Your task to perform on an android device: Go to network settings Image 0: 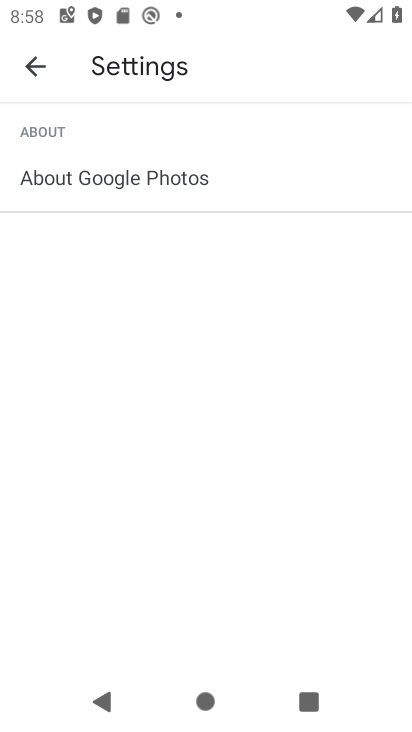
Step 0: press home button
Your task to perform on an android device: Go to network settings Image 1: 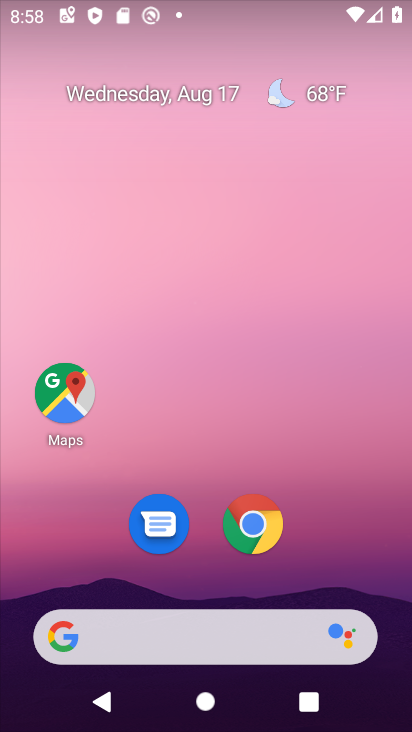
Step 1: drag from (309, 567) to (385, 2)
Your task to perform on an android device: Go to network settings Image 2: 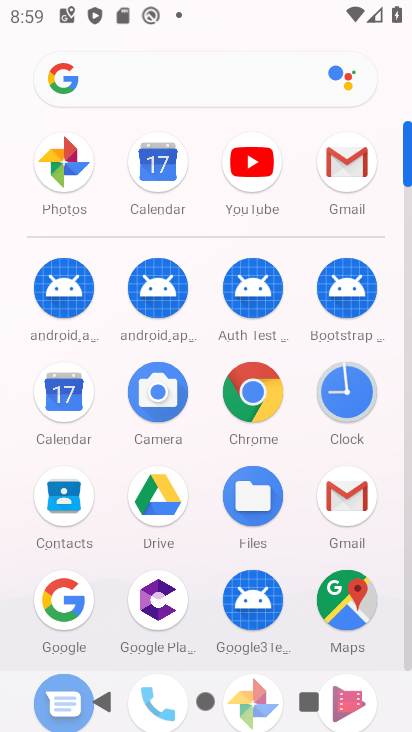
Step 2: drag from (203, 532) to (239, 66)
Your task to perform on an android device: Go to network settings Image 3: 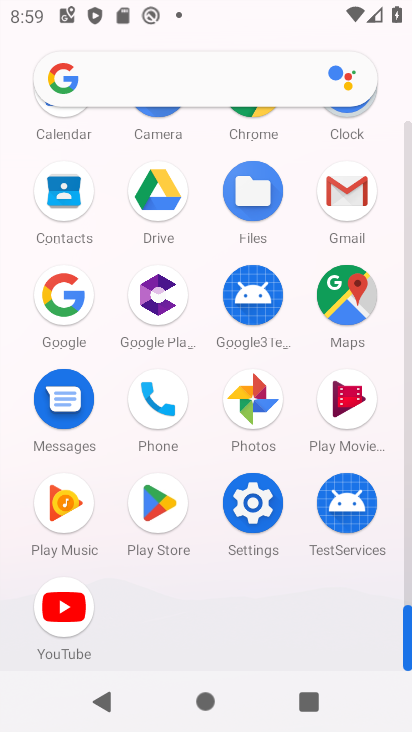
Step 3: click (262, 499)
Your task to perform on an android device: Go to network settings Image 4: 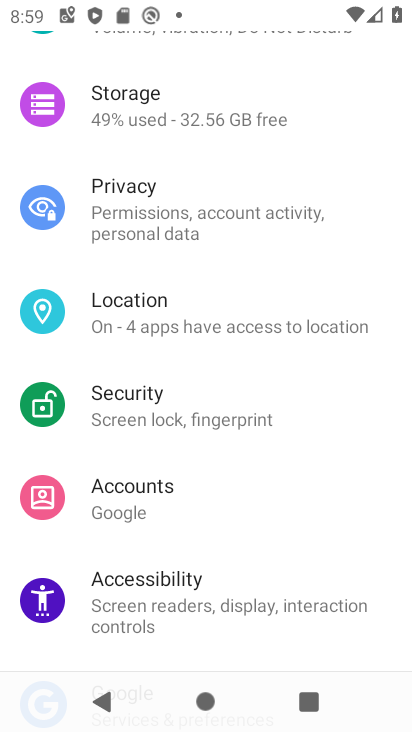
Step 4: drag from (233, 204) to (219, 613)
Your task to perform on an android device: Go to network settings Image 5: 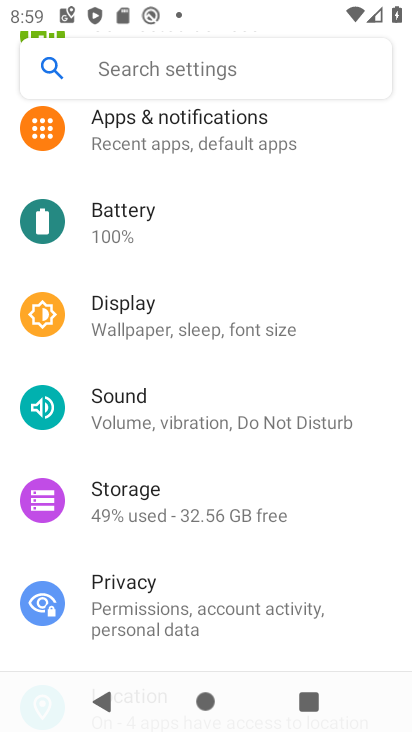
Step 5: drag from (227, 217) to (247, 553)
Your task to perform on an android device: Go to network settings Image 6: 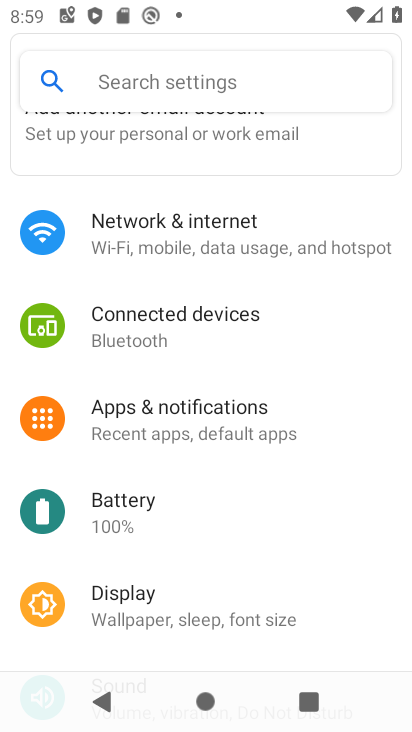
Step 6: click (252, 233)
Your task to perform on an android device: Go to network settings Image 7: 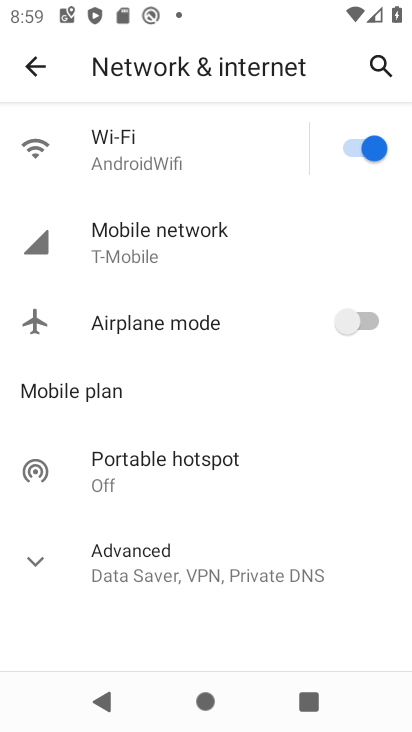
Step 7: task complete